Your task to perform on an android device: When is my next appointment? Image 0: 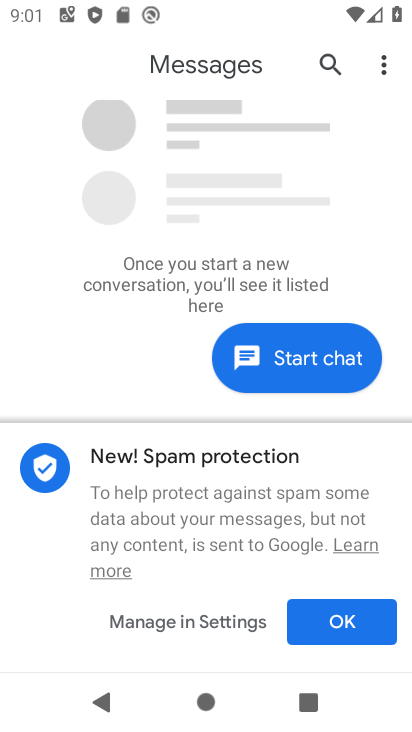
Step 0: press home button
Your task to perform on an android device: When is my next appointment? Image 1: 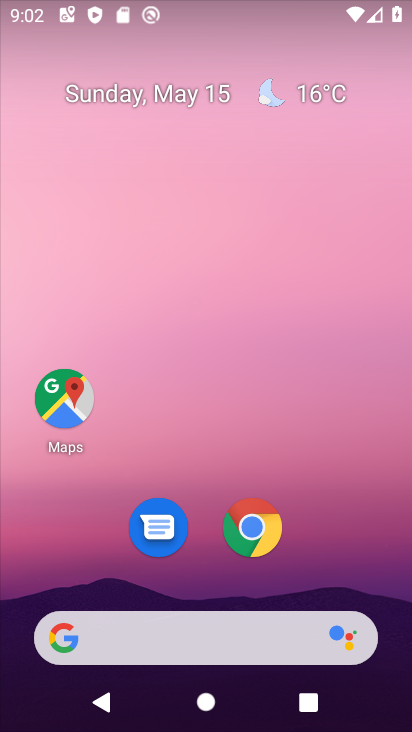
Step 1: drag from (351, 591) to (325, 3)
Your task to perform on an android device: When is my next appointment? Image 2: 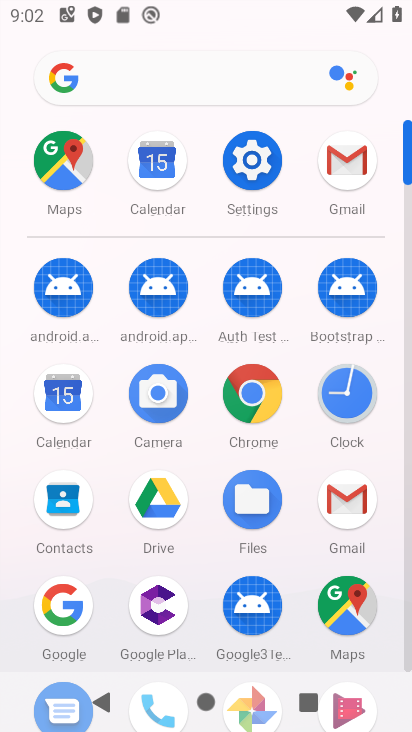
Step 2: click (153, 178)
Your task to perform on an android device: When is my next appointment? Image 3: 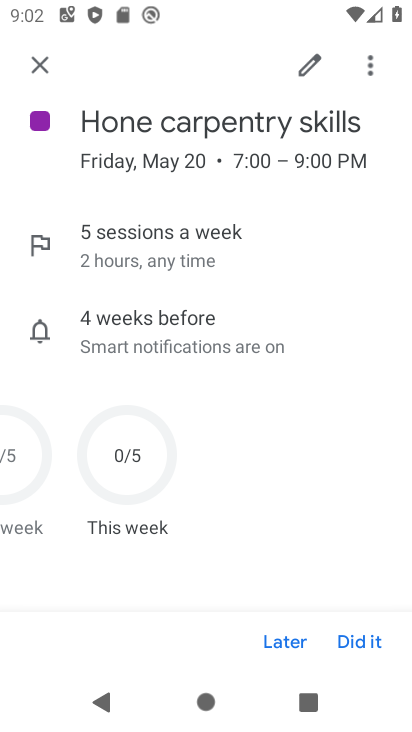
Step 3: click (35, 69)
Your task to perform on an android device: When is my next appointment? Image 4: 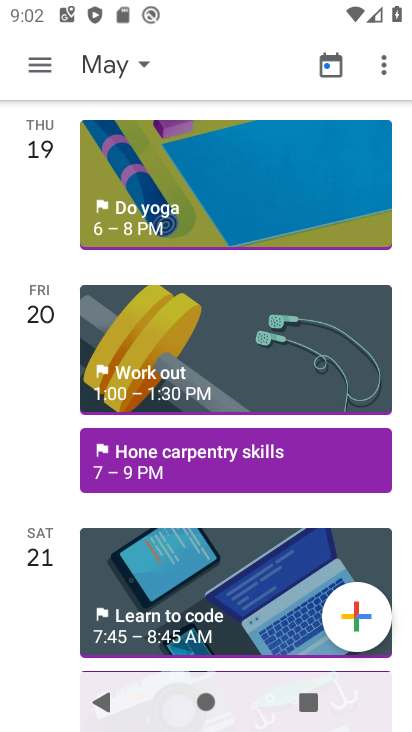
Step 4: click (337, 67)
Your task to perform on an android device: When is my next appointment? Image 5: 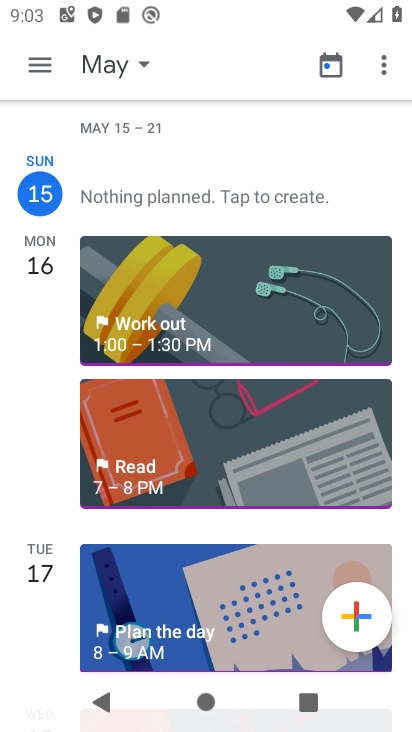
Step 5: drag from (202, 531) to (189, 111)
Your task to perform on an android device: When is my next appointment? Image 6: 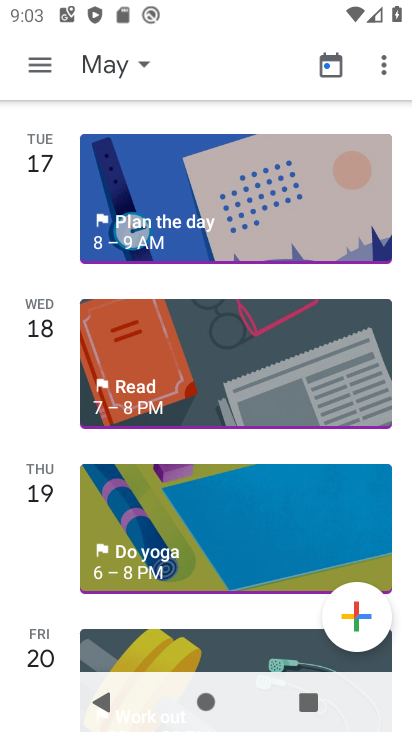
Step 6: drag from (183, 492) to (190, 50)
Your task to perform on an android device: When is my next appointment? Image 7: 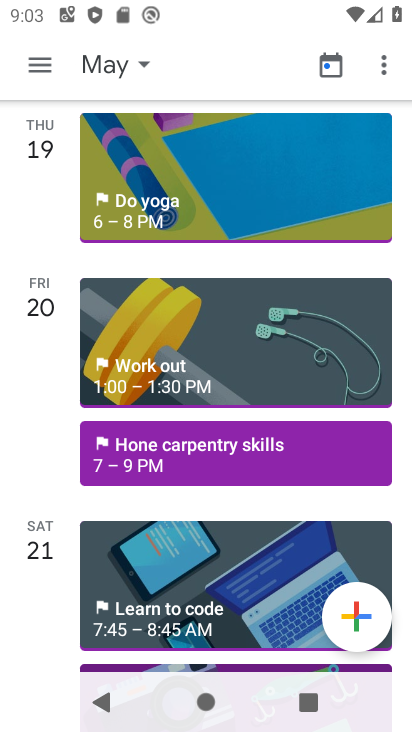
Step 7: click (186, 451)
Your task to perform on an android device: When is my next appointment? Image 8: 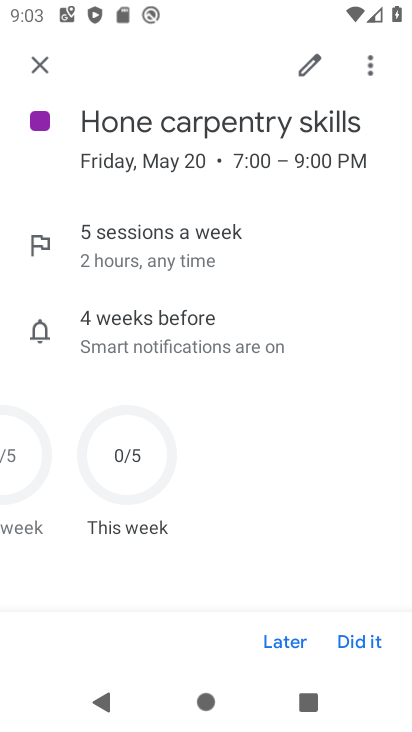
Step 8: task complete